Your task to perform on an android device: When is my next appointment? Image 0: 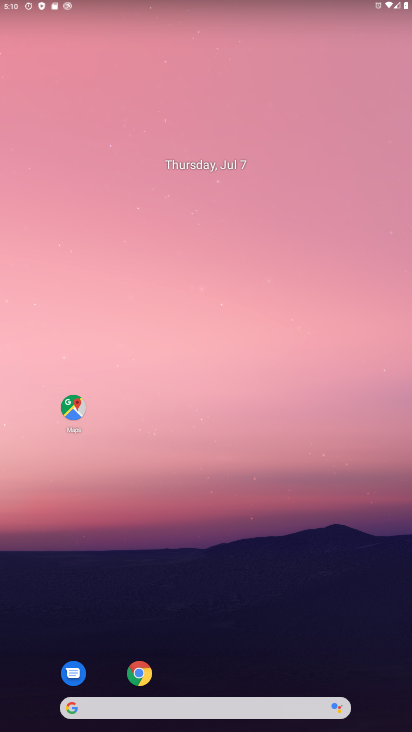
Step 0: drag from (283, 627) to (302, 153)
Your task to perform on an android device: When is my next appointment? Image 1: 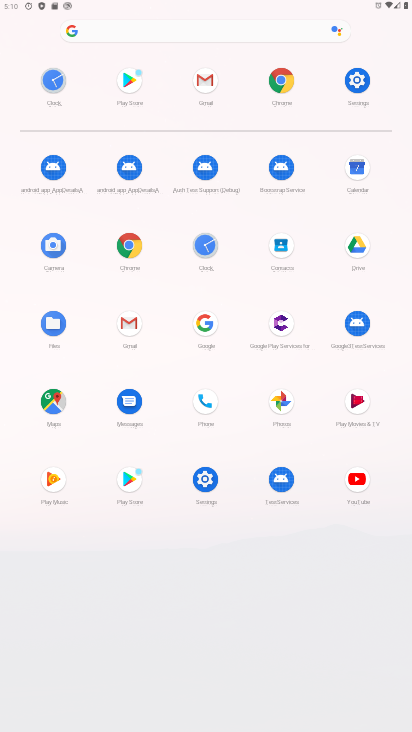
Step 1: click (370, 169)
Your task to perform on an android device: When is my next appointment? Image 2: 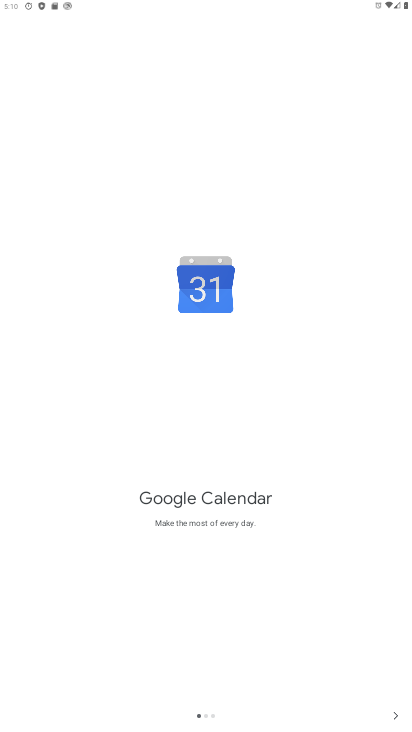
Step 2: click (399, 715)
Your task to perform on an android device: When is my next appointment? Image 3: 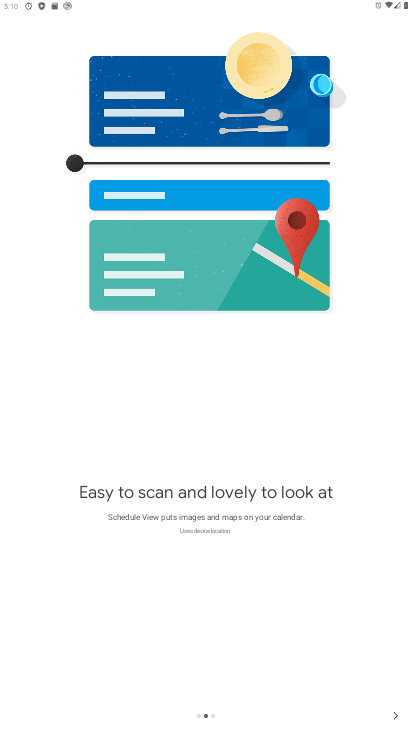
Step 3: click (395, 718)
Your task to perform on an android device: When is my next appointment? Image 4: 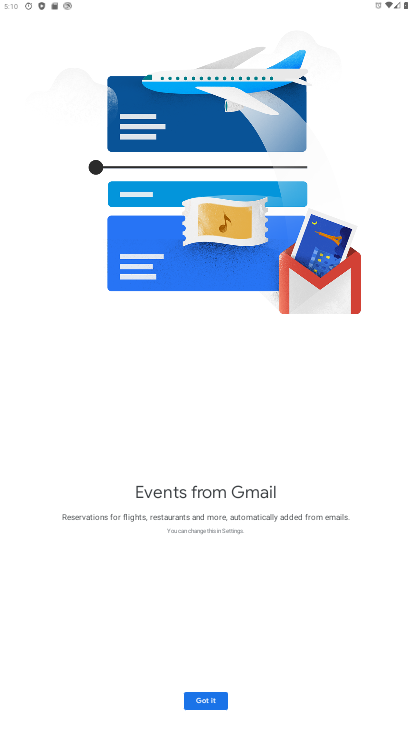
Step 4: click (224, 698)
Your task to perform on an android device: When is my next appointment? Image 5: 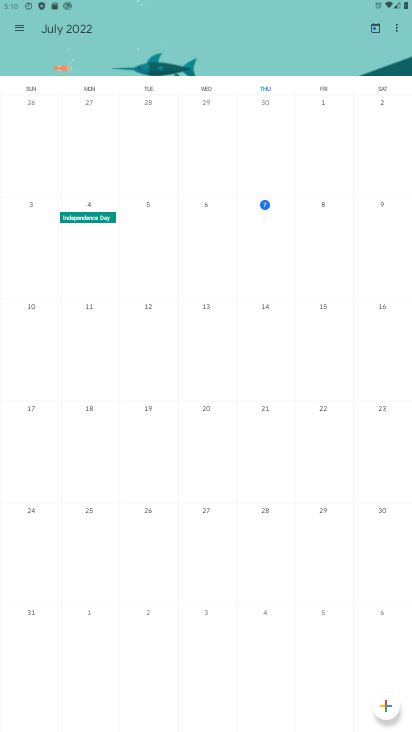
Step 5: click (322, 202)
Your task to perform on an android device: When is my next appointment? Image 6: 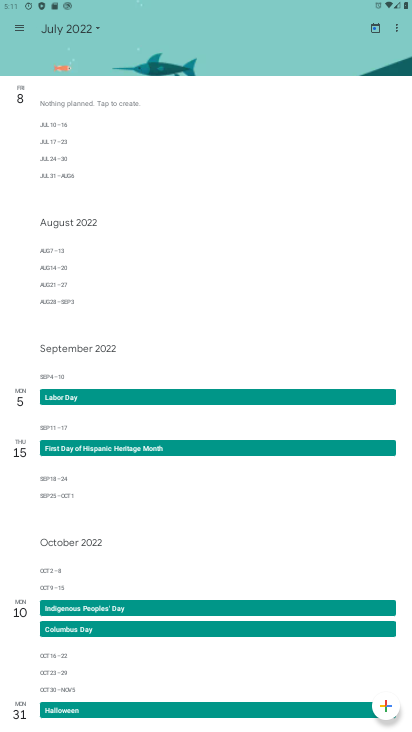
Step 6: task complete